Your task to perform on an android device: Open Amazon Image 0: 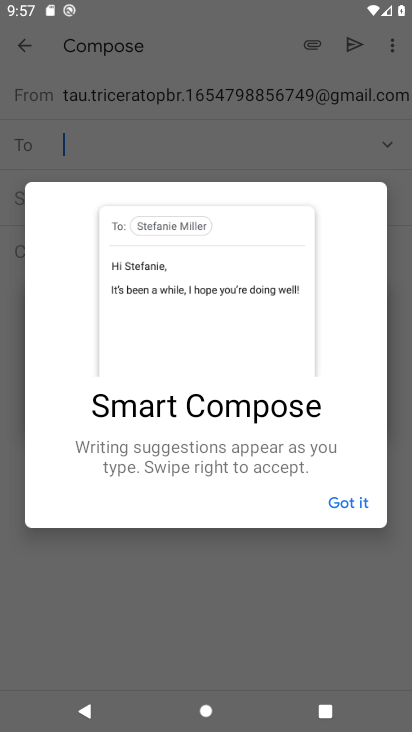
Step 0: press home button
Your task to perform on an android device: Open Amazon Image 1: 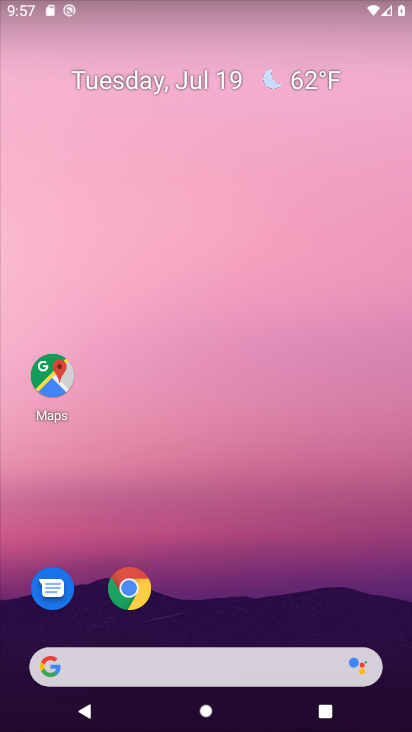
Step 1: click (123, 575)
Your task to perform on an android device: Open Amazon Image 2: 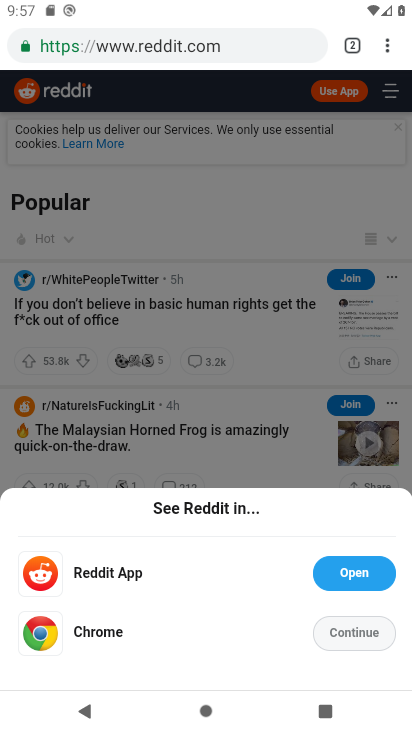
Step 2: click (184, 49)
Your task to perform on an android device: Open Amazon Image 3: 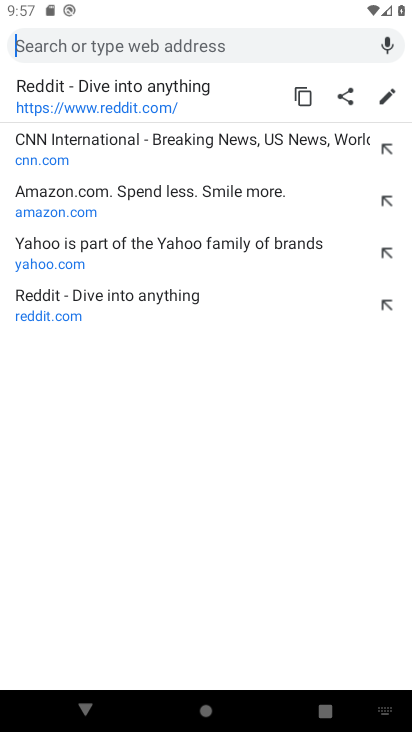
Step 3: click (82, 206)
Your task to perform on an android device: Open Amazon Image 4: 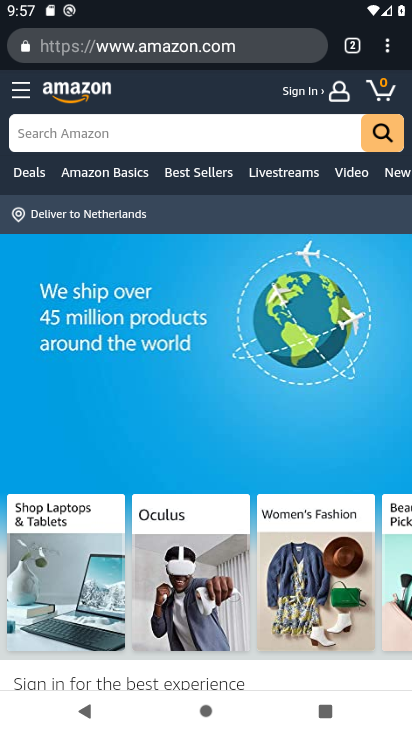
Step 4: task complete